Your task to perform on an android device: Open settings Image 0: 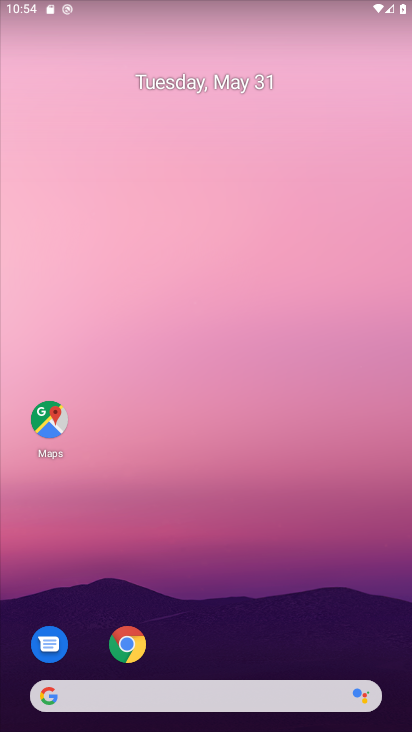
Step 0: drag from (243, 612) to (243, 46)
Your task to perform on an android device: Open settings Image 1: 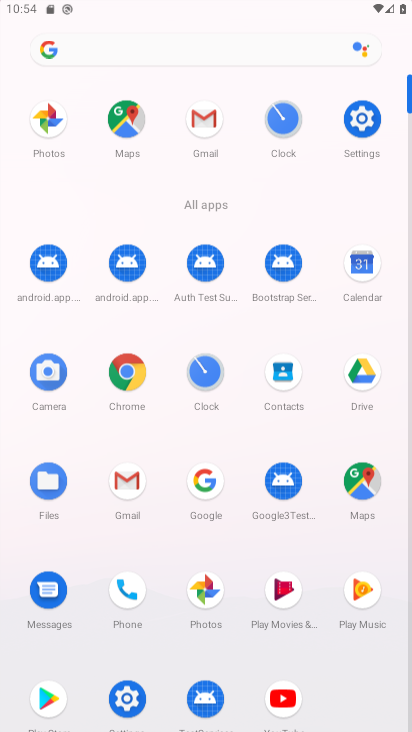
Step 1: drag from (236, 520) to (236, 138)
Your task to perform on an android device: Open settings Image 2: 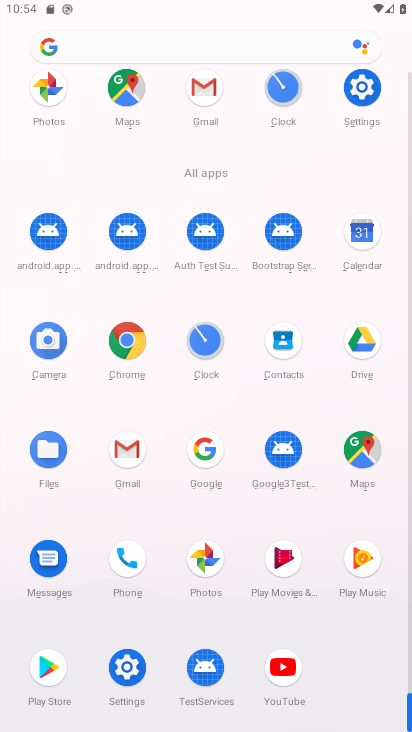
Step 2: click (363, 83)
Your task to perform on an android device: Open settings Image 3: 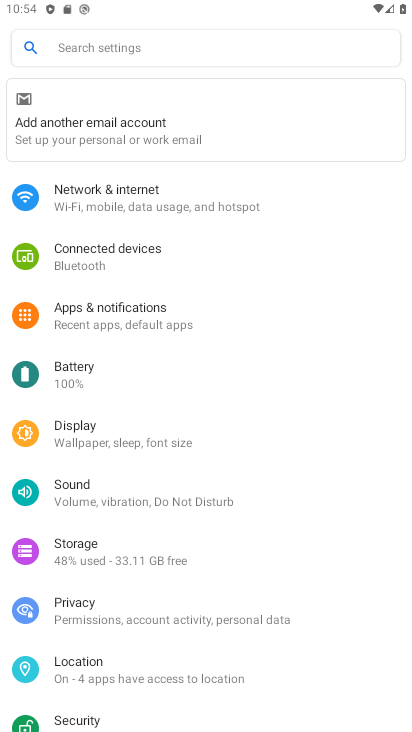
Step 3: task complete